Your task to perform on an android device: Do I have any events today? Image 0: 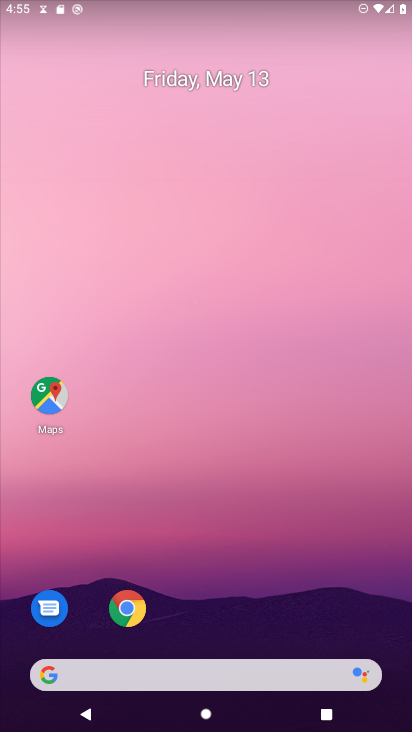
Step 0: drag from (195, 668) to (213, 46)
Your task to perform on an android device: Do I have any events today? Image 1: 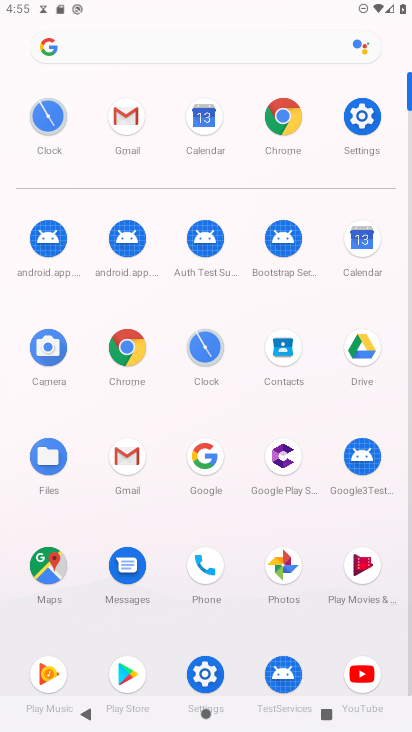
Step 1: click (362, 250)
Your task to perform on an android device: Do I have any events today? Image 2: 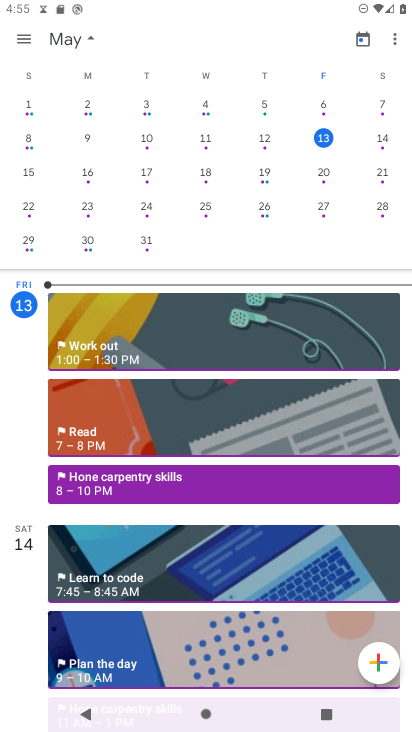
Step 2: click (325, 136)
Your task to perform on an android device: Do I have any events today? Image 3: 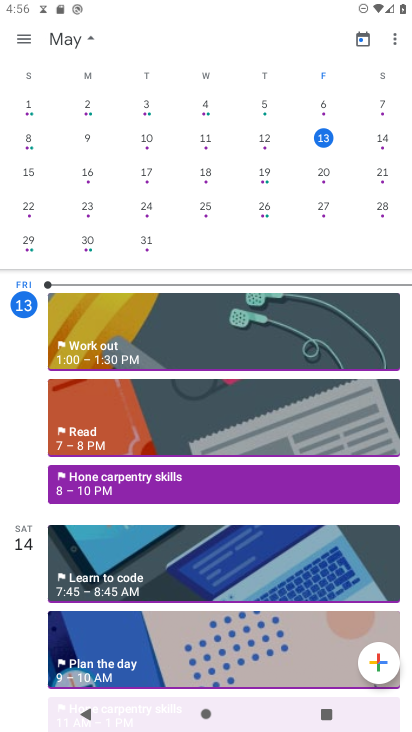
Step 3: task complete